Your task to perform on an android device: check the backup settings in the google photos Image 0: 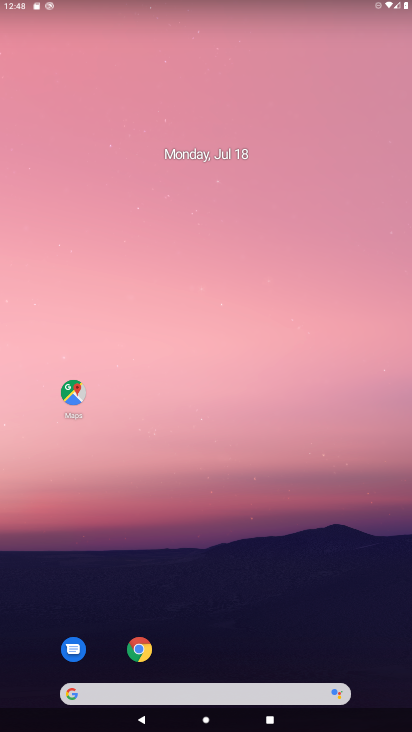
Step 0: drag from (25, 686) to (252, 62)
Your task to perform on an android device: check the backup settings in the google photos Image 1: 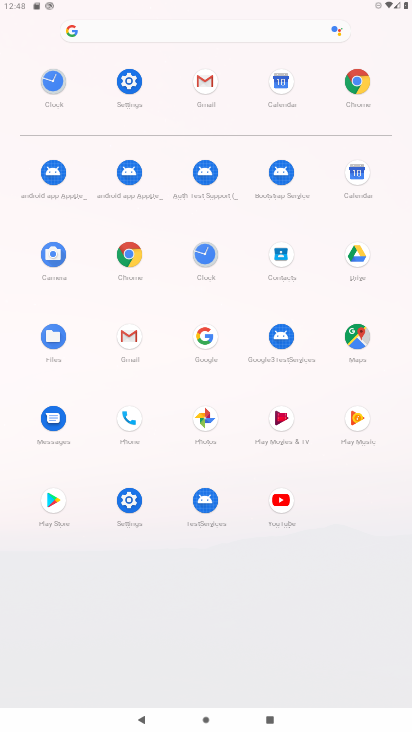
Step 1: click (196, 419)
Your task to perform on an android device: check the backup settings in the google photos Image 2: 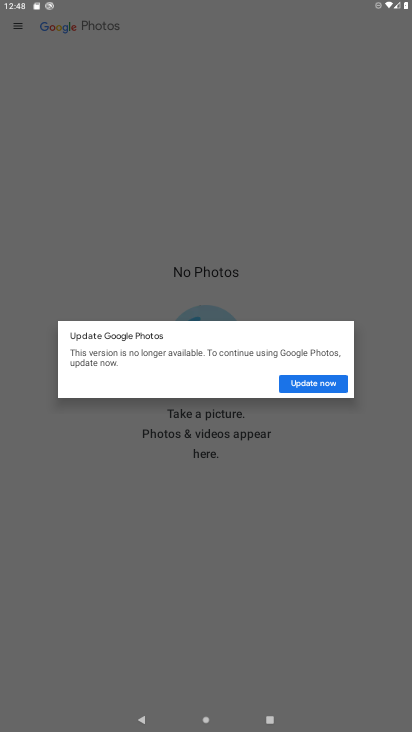
Step 2: click (328, 388)
Your task to perform on an android device: check the backup settings in the google photos Image 3: 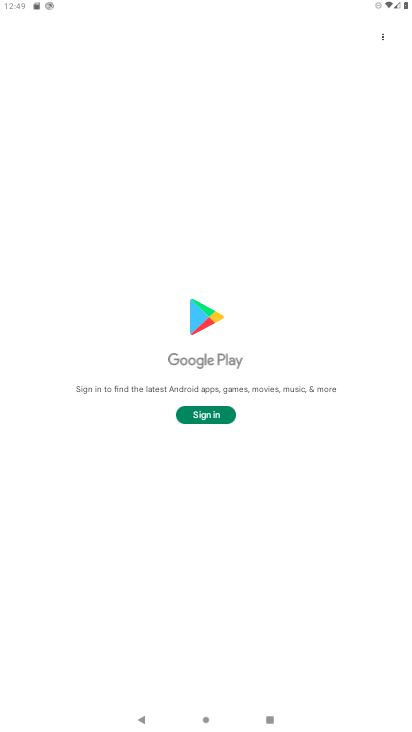
Step 3: task complete